Your task to perform on an android device: Show me popular games on the Play Store Image 0: 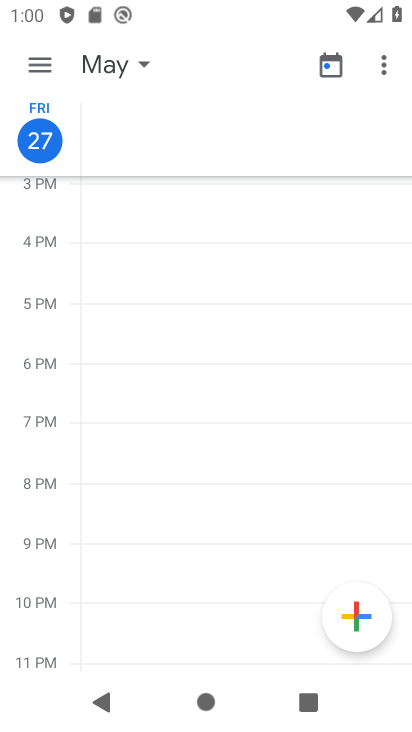
Step 0: press home button
Your task to perform on an android device: Show me popular games on the Play Store Image 1: 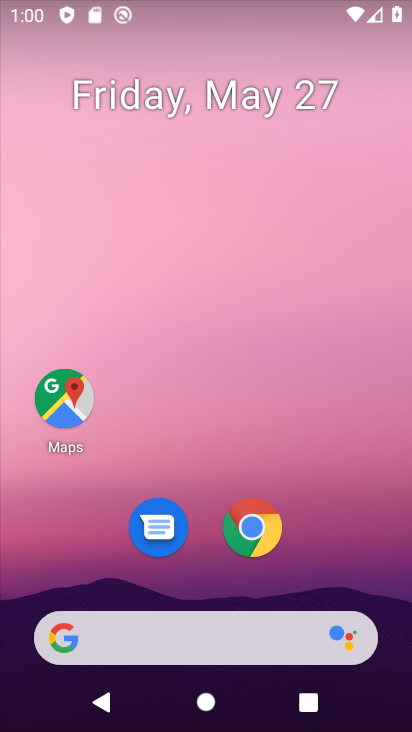
Step 1: drag from (379, 530) to (352, 83)
Your task to perform on an android device: Show me popular games on the Play Store Image 2: 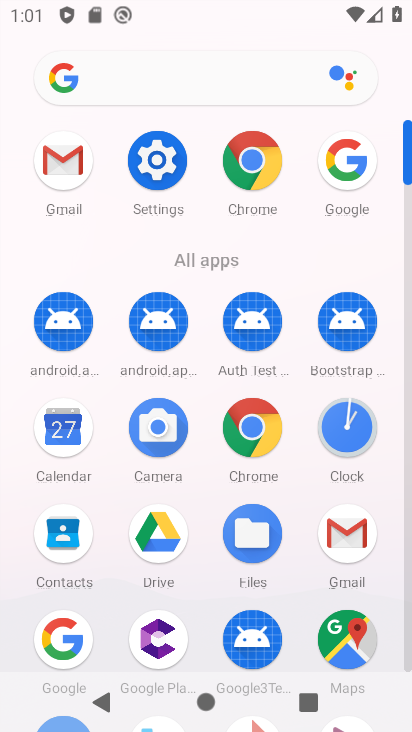
Step 2: drag from (199, 282) to (228, 101)
Your task to perform on an android device: Show me popular games on the Play Store Image 3: 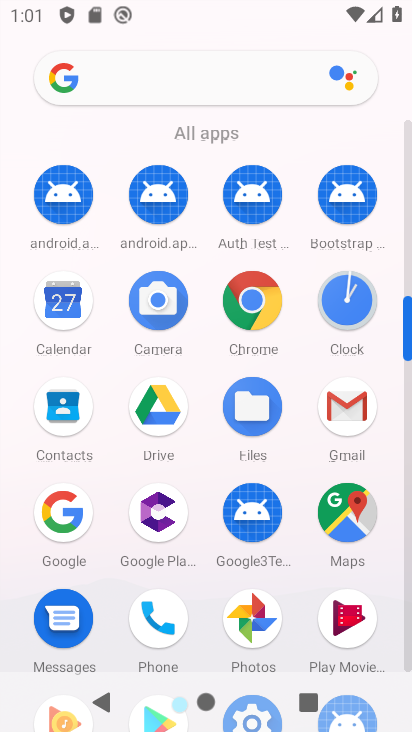
Step 3: drag from (211, 585) to (184, 467)
Your task to perform on an android device: Show me popular games on the Play Store Image 4: 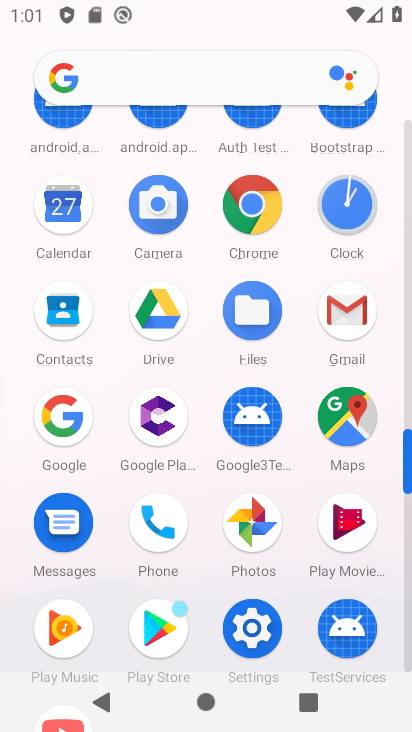
Step 4: click (180, 628)
Your task to perform on an android device: Show me popular games on the Play Store Image 5: 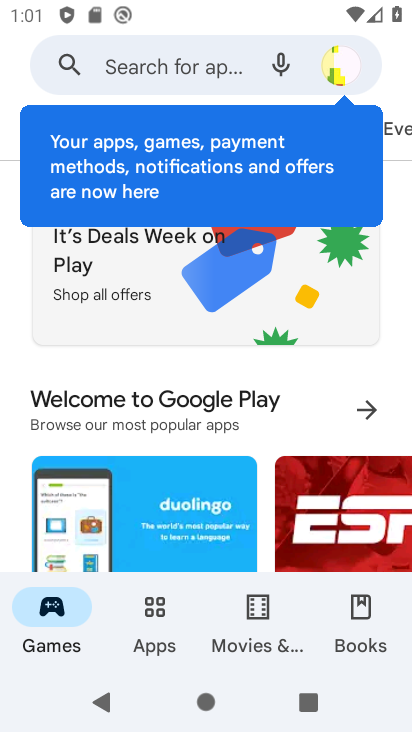
Step 5: click (204, 448)
Your task to perform on an android device: Show me popular games on the Play Store Image 6: 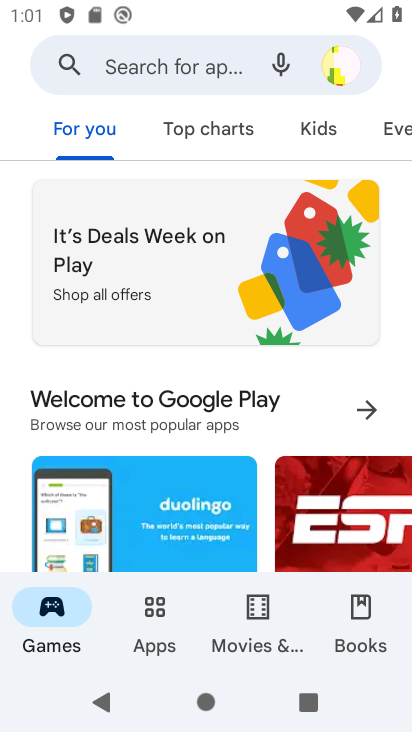
Step 6: click (196, 127)
Your task to perform on an android device: Show me popular games on the Play Store Image 7: 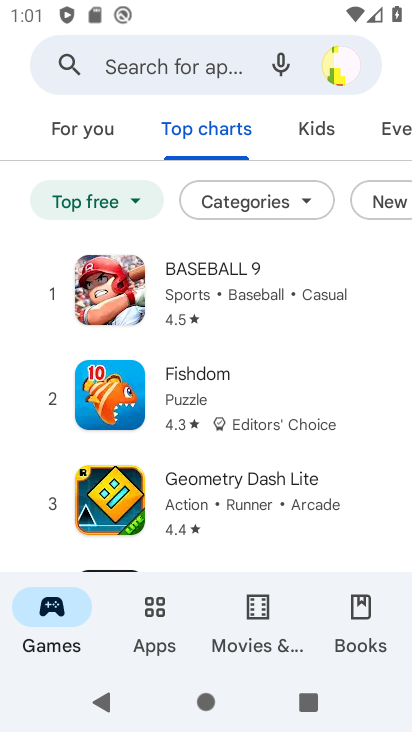
Step 7: task complete